Your task to perform on an android device: Open Chrome and go to settings Image 0: 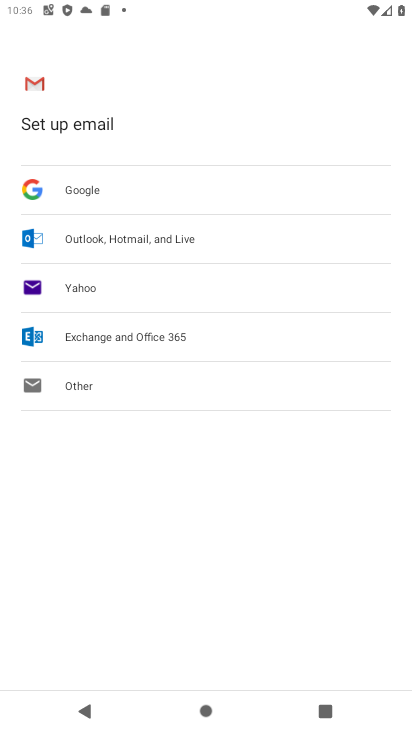
Step 0: press home button
Your task to perform on an android device: Open Chrome and go to settings Image 1: 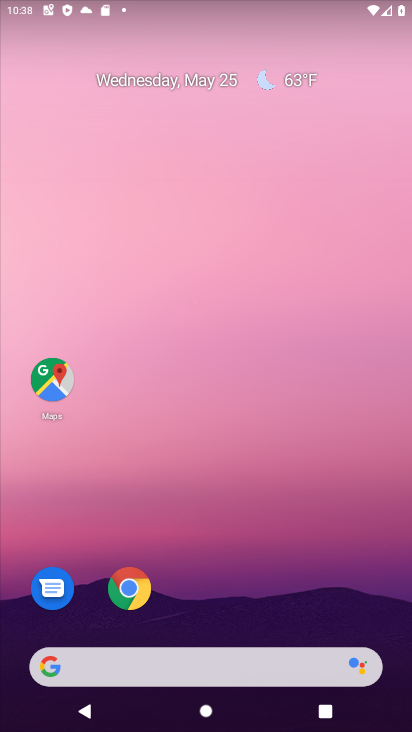
Step 1: click (135, 594)
Your task to perform on an android device: Open Chrome and go to settings Image 2: 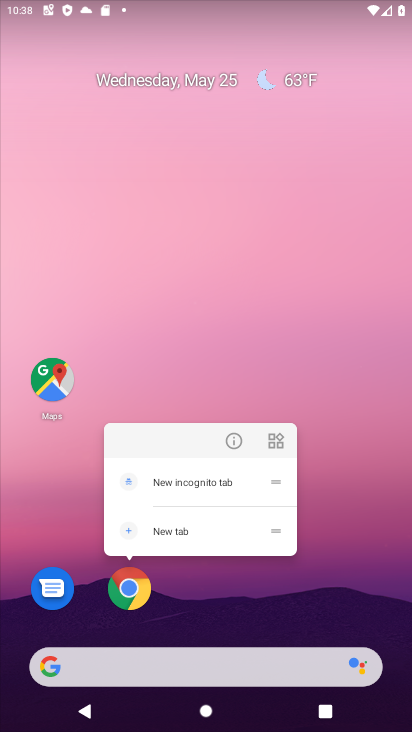
Step 2: click (121, 598)
Your task to perform on an android device: Open Chrome and go to settings Image 3: 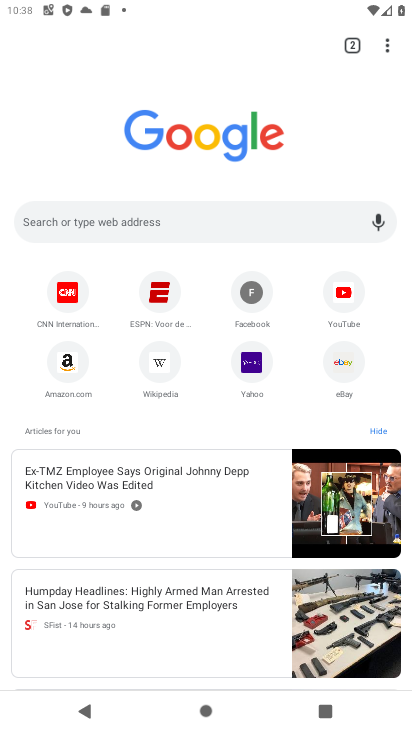
Step 3: click (384, 51)
Your task to perform on an android device: Open Chrome and go to settings Image 4: 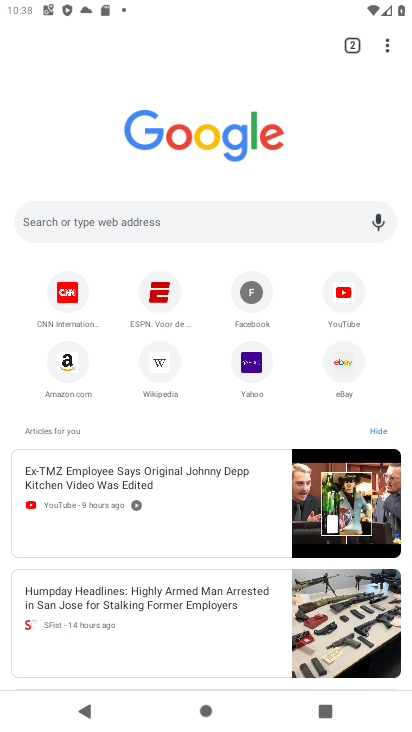
Step 4: click (388, 49)
Your task to perform on an android device: Open Chrome and go to settings Image 5: 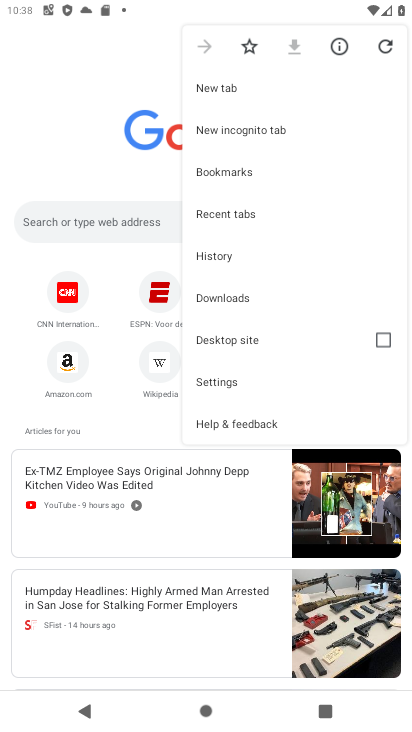
Step 5: click (211, 376)
Your task to perform on an android device: Open Chrome and go to settings Image 6: 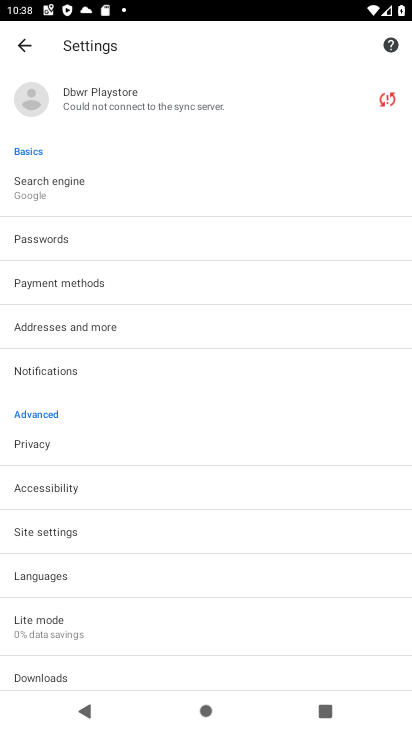
Step 6: task complete